Your task to perform on an android device: Go to Android settings Image 0: 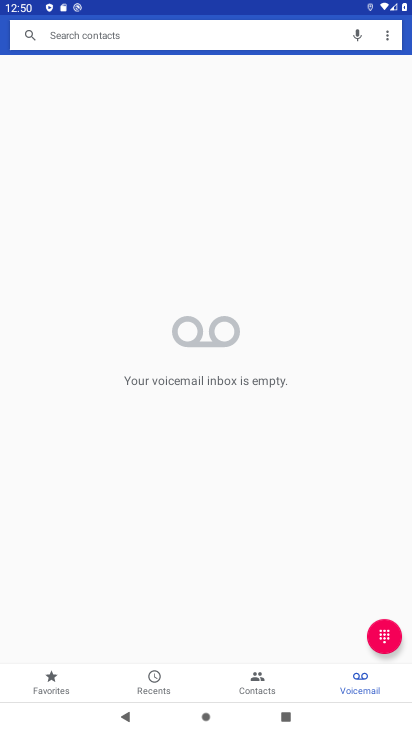
Step 0: press home button
Your task to perform on an android device: Go to Android settings Image 1: 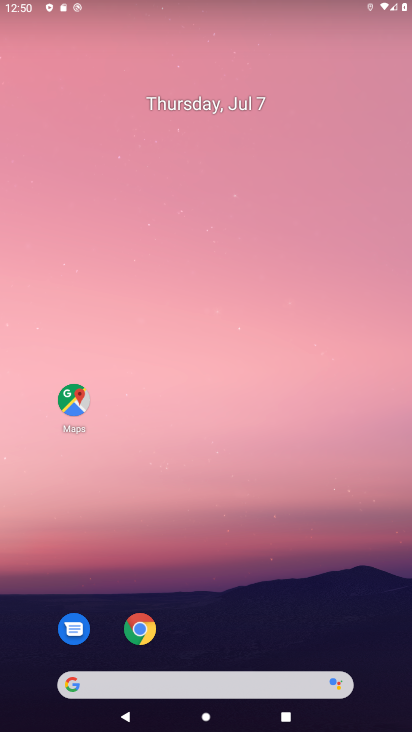
Step 1: drag from (237, 603) to (239, 115)
Your task to perform on an android device: Go to Android settings Image 2: 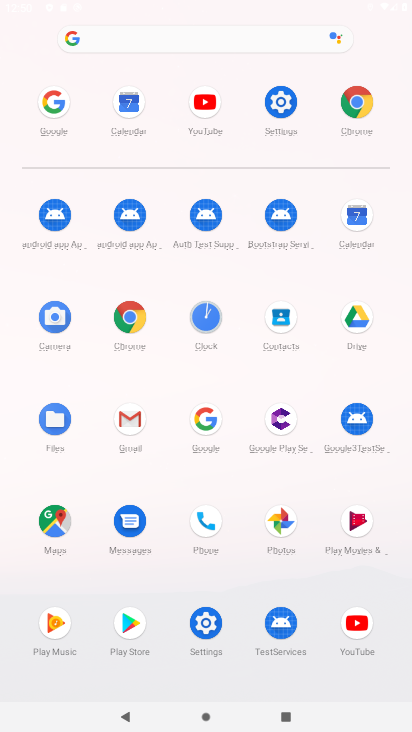
Step 2: click (282, 100)
Your task to perform on an android device: Go to Android settings Image 3: 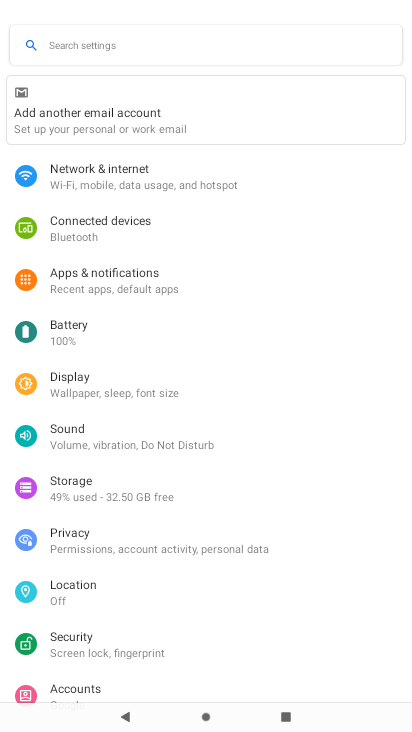
Step 3: task complete